Your task to perform on an android device: Open Google Chrome Image 0: 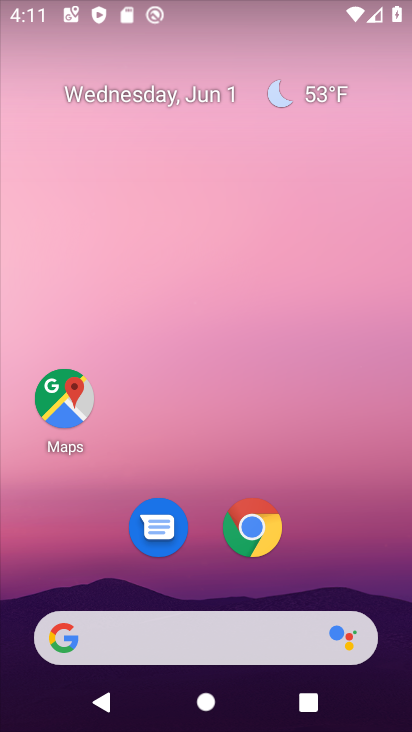
Step 0: drag from (294, 567) to (345, 198)
Your task to perform on an android device: Open Google Chrome Image 1: 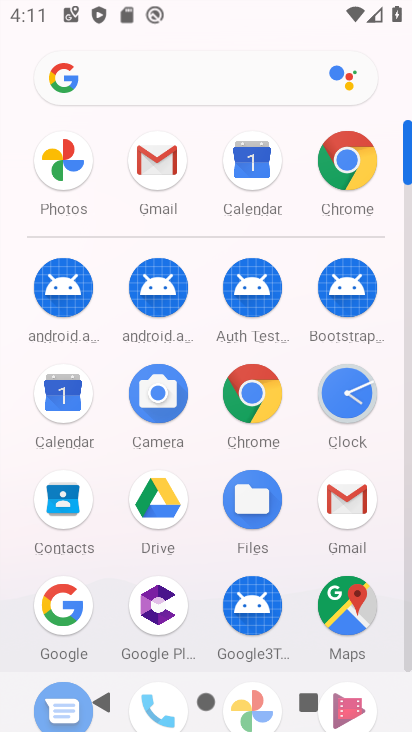
Step 1: click (248, 386)
Your task to perform on an android device: Open Google Chrome Image 2: 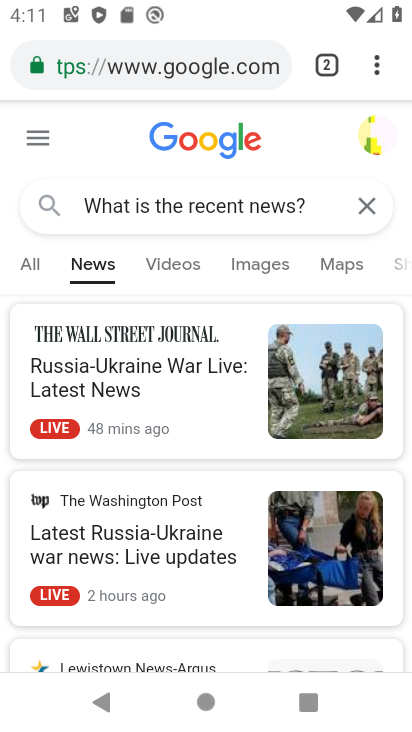
Step 2: task complete